Your task to perform on an android device: Open calendar and show me the second week of next month Image 0: 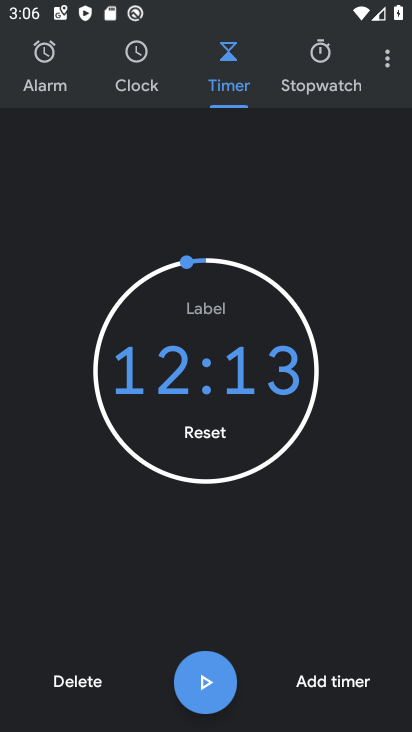
Step 0: press home button
Your task to perform on an android device: Open calendar and show me the second week of next month Image 1: 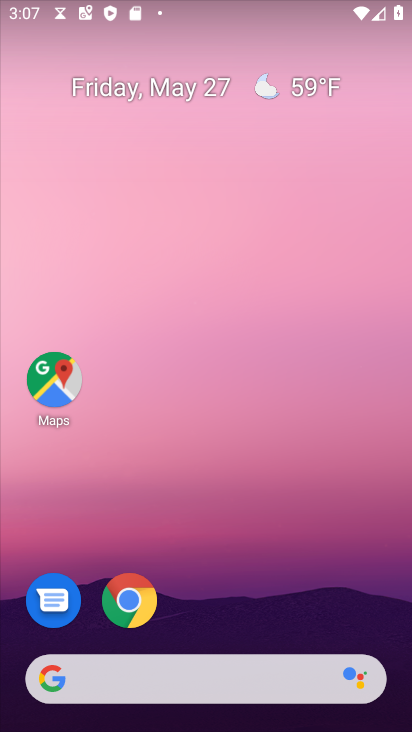
Step 1: drag from (236, 558) to (239, 156)
Your task to perform on an android device: Open calendar and show me the second week of next month Image 2: 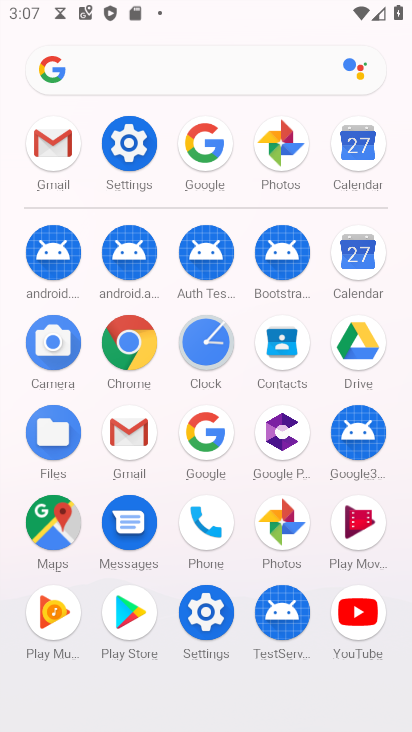
Step 2: click (360, 147)
Your task to perform on an android device: Open calendar and show me the second week of next month Image 3: 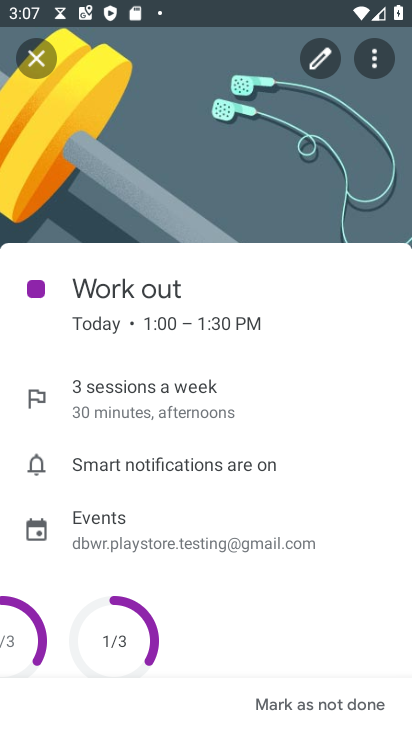
Step 3: click (40, 60)
Your task to perform on an android device: Open calendar and show me the second week of next month Image 4: 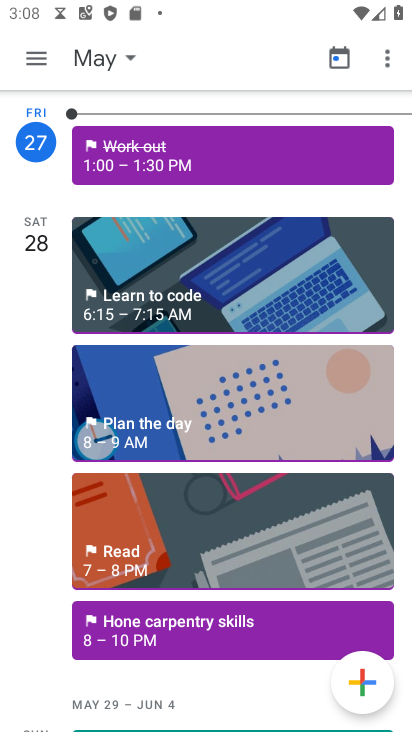
Step 4: click (129, 57)
Your task to perform on an android device: Open calendar and show me the second week of next month Image 5: 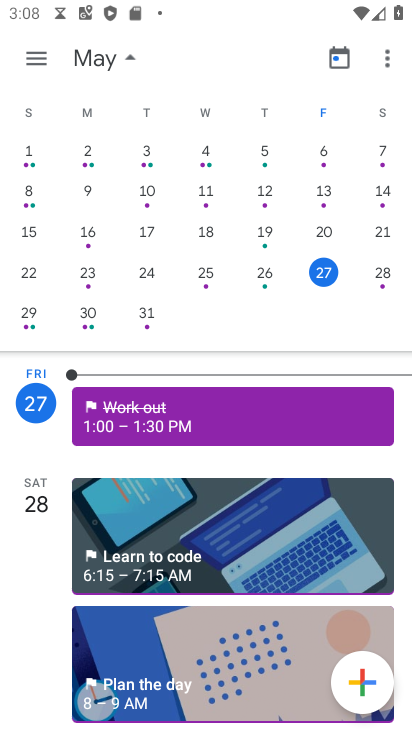
Step 5: drag from (238, 254) to (25, 283)
Your task to perform on an android device: Open calendar and show me the second week of next month Image 6: 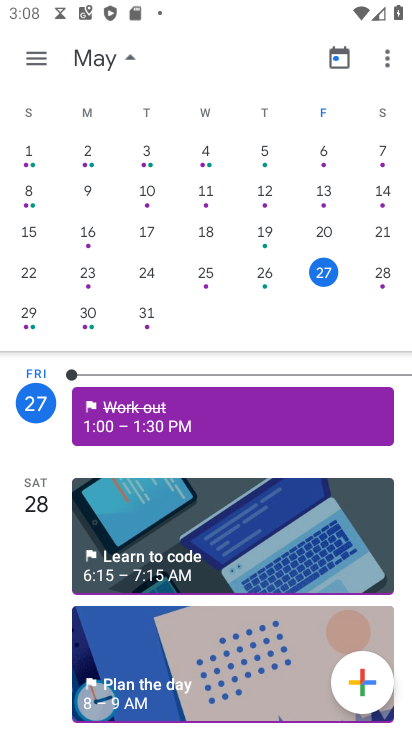
Step 6: drag from (372, 253) to (24, 275)
Your task to perform on an android device: Open calendar and show me the second week of next month Image 7: 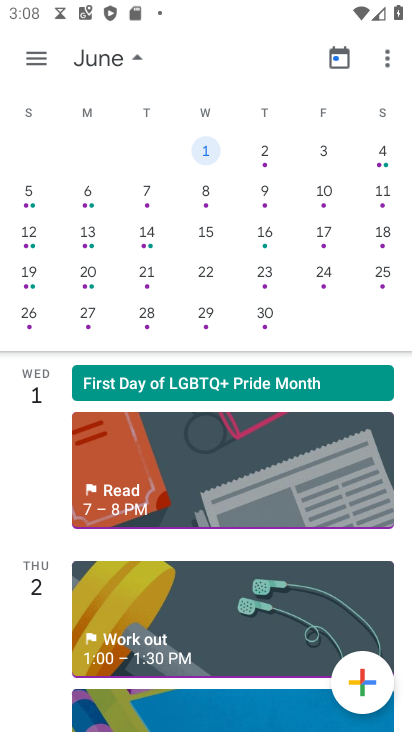
Step 7: click (89, 237)
Your task to perform on an android device: Open calendar and show me the second week of next month Image 8: 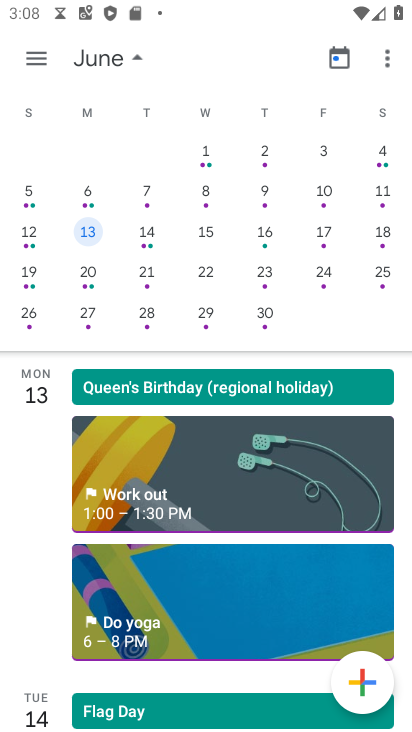
Step 8: click (39, 62)
Your task to perform on an android device: Open calendar and show me the second week of next month Image 9: 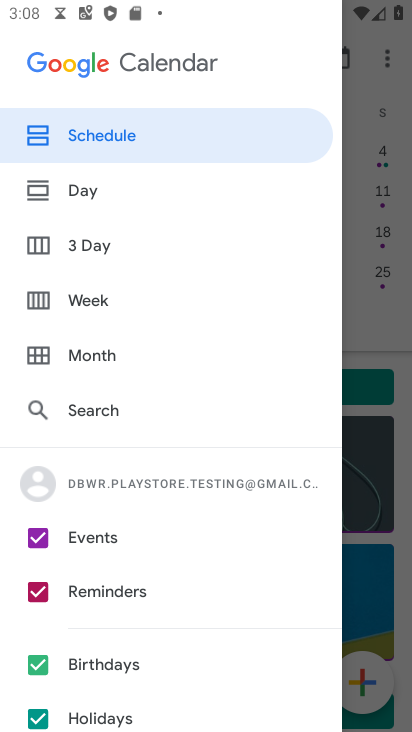
Step 9: click (75, 304)
Your task to perform on an android device: Open calendar and show me the second week of next month Image 10: 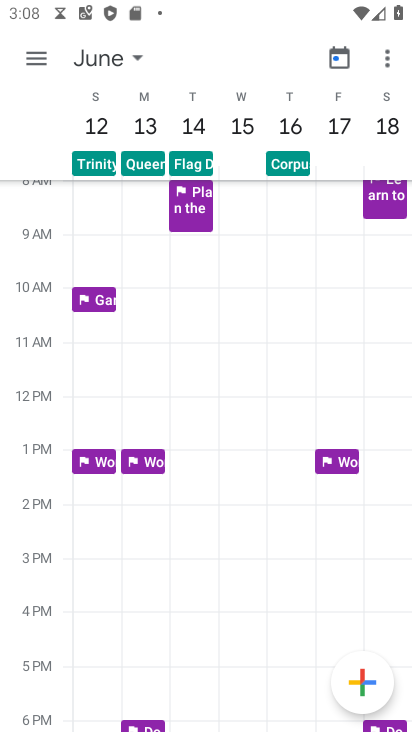
Step 10: task complete